Your task to perform on an android device: Open Chrome and go to settings Image 0: 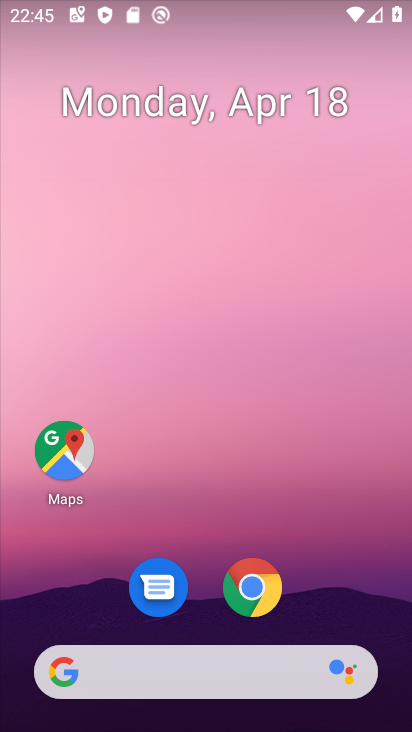
Step 0: drag from (366, 583) to (385, 104)
Your task to perform on an android device: Open Chrome and go to settings Image 1: 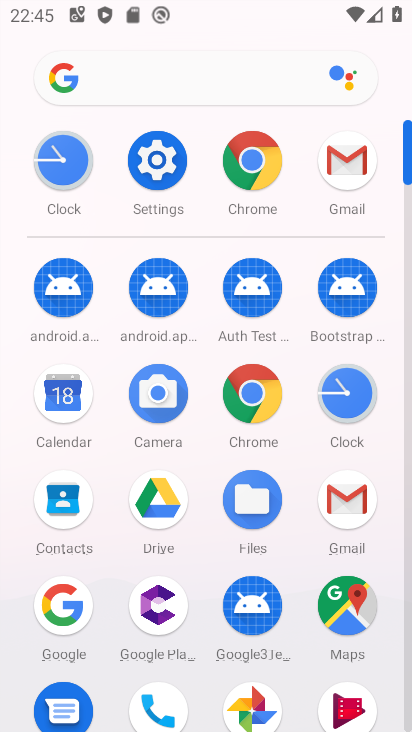
Step 1: click (245, 389)
Your task to perform on an android device: Open Chrome and go to settings Image 2: 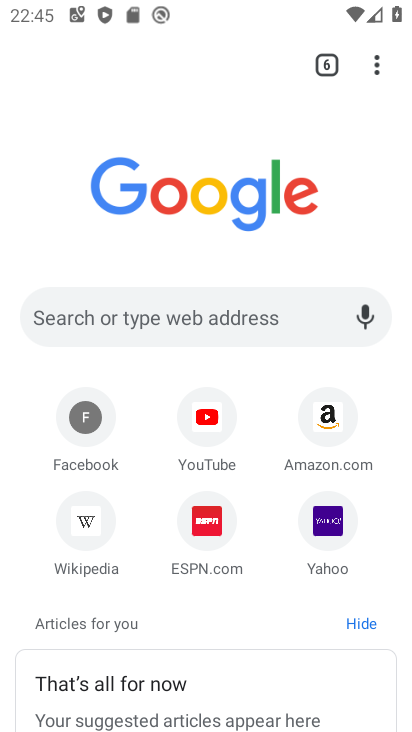
Step 2: press home button
Your task to perform on an android device: Open Chrome and go to settings Image 3: 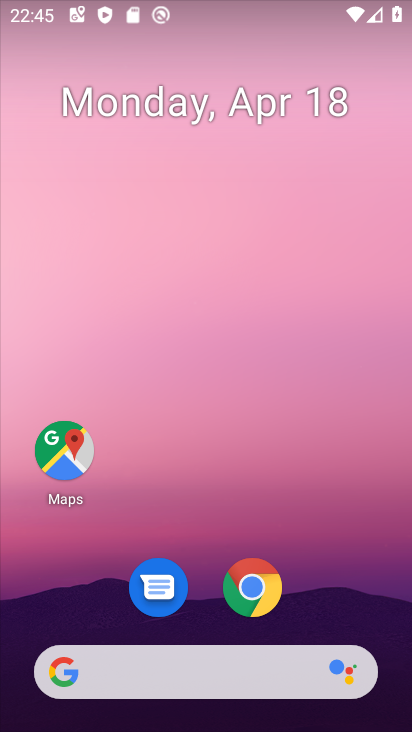
Step 3: click (286, 588)
Your task to perform on an android device: Open Chrome and go to settings Image 4: 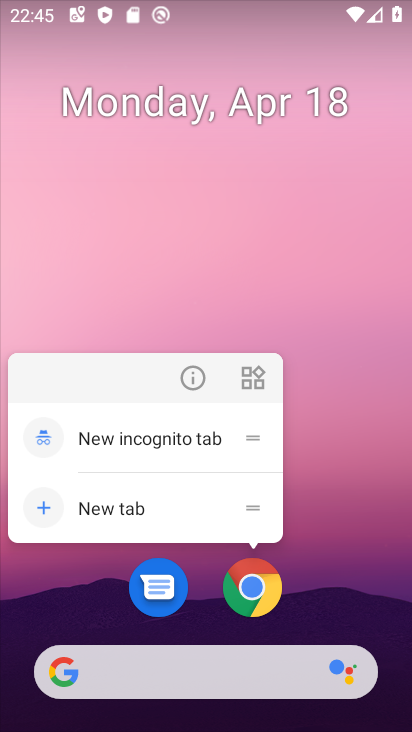
Step 4: click (256, 609)
Your task to perform on an android device: Open Chrome and go to settings Image 5: 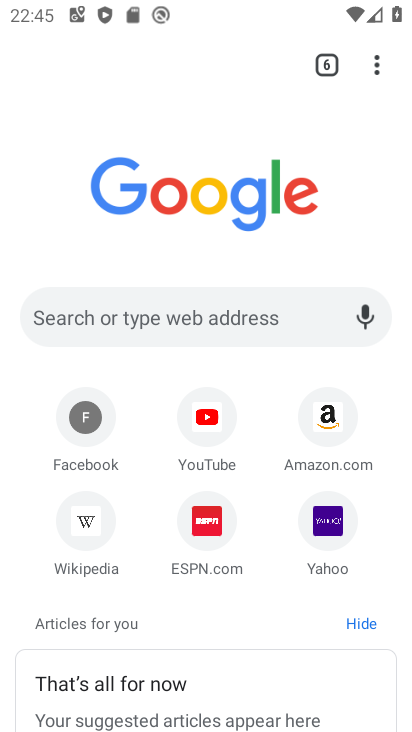
Step 5: click (380, 69)
Your task to perform on an android device: Open Chrome and go to settings Image 6: 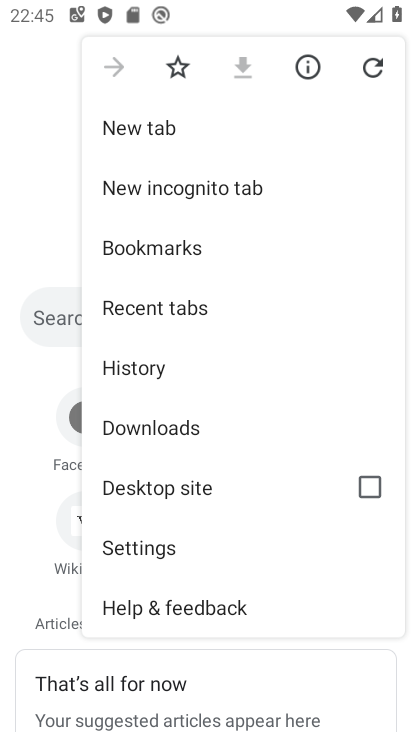
Step 6: click (158, 564)
Your task to perform on an android device: Open Chrome and go to settings Image 7: 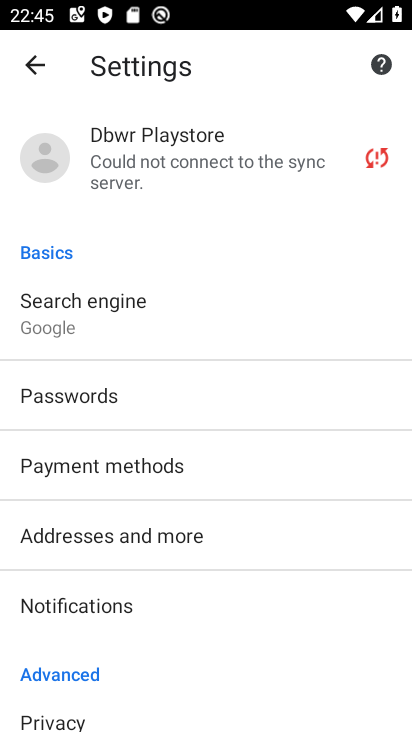
Step 7: task complete